Your task to perform on an android device: Search for pizza restaurants on Maps Image 0: 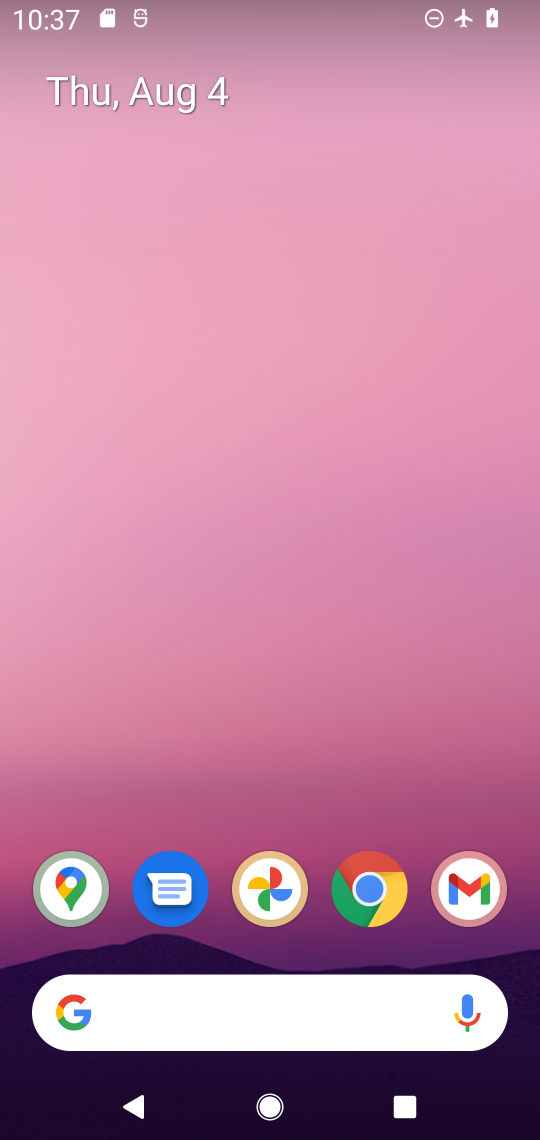
Step 0: press home button
Your task to perform on an android device: Search for pizza restaurants on Maps Image 1: 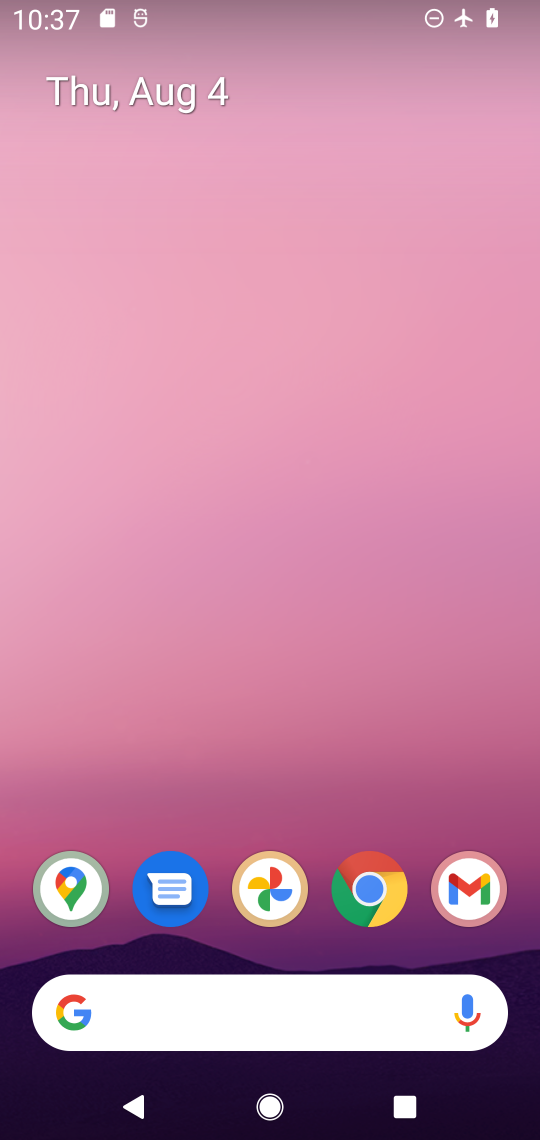
Step 1: drag from (414, 791) to (427, 238)
Your task to perform on an android device: Search for pizza restaurants on Maps Image 2: 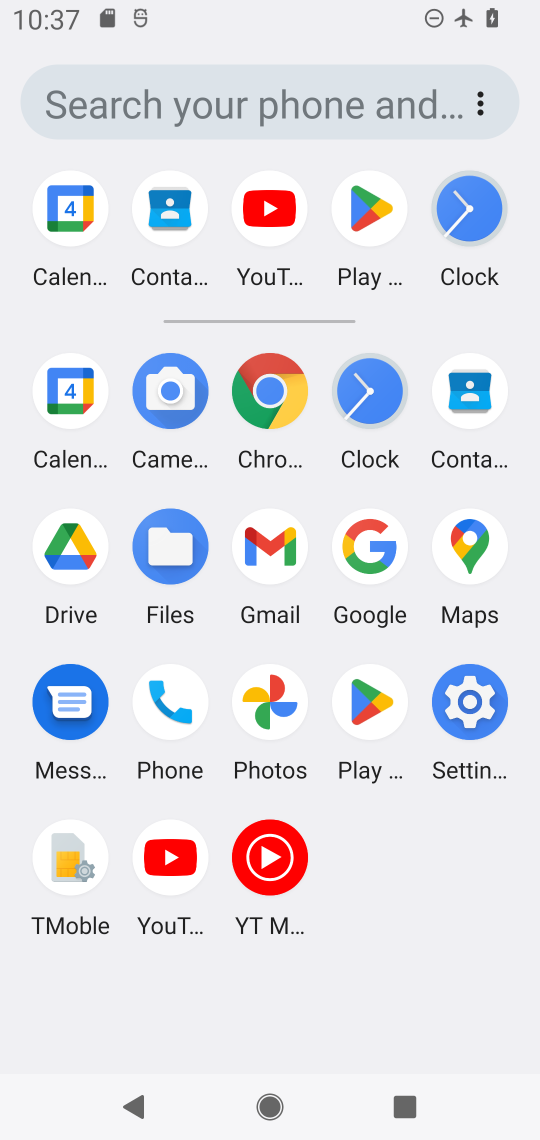
Step 2: click (477, 545)
Your task to perform on an android device: Search for pizza restaurants on Maps Image 3: 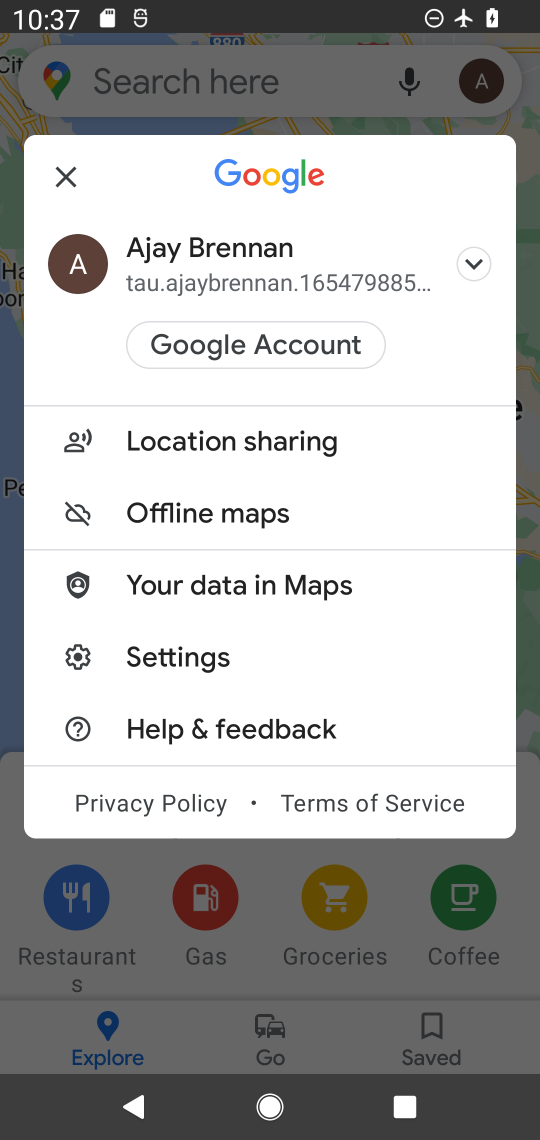
Step 3: press back button
Your task to perform on an android device: Search for pizza restaurants on Maps Image 4: 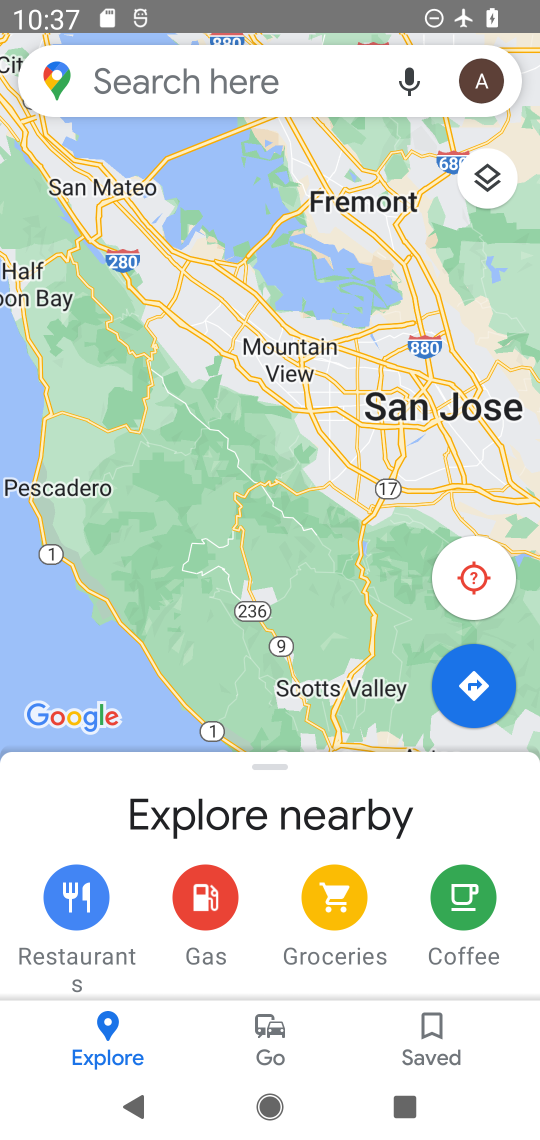
Step 4: click (265, 76)
Your task to perform on an android device: Search for pizza restaurants on Maps Image 5: 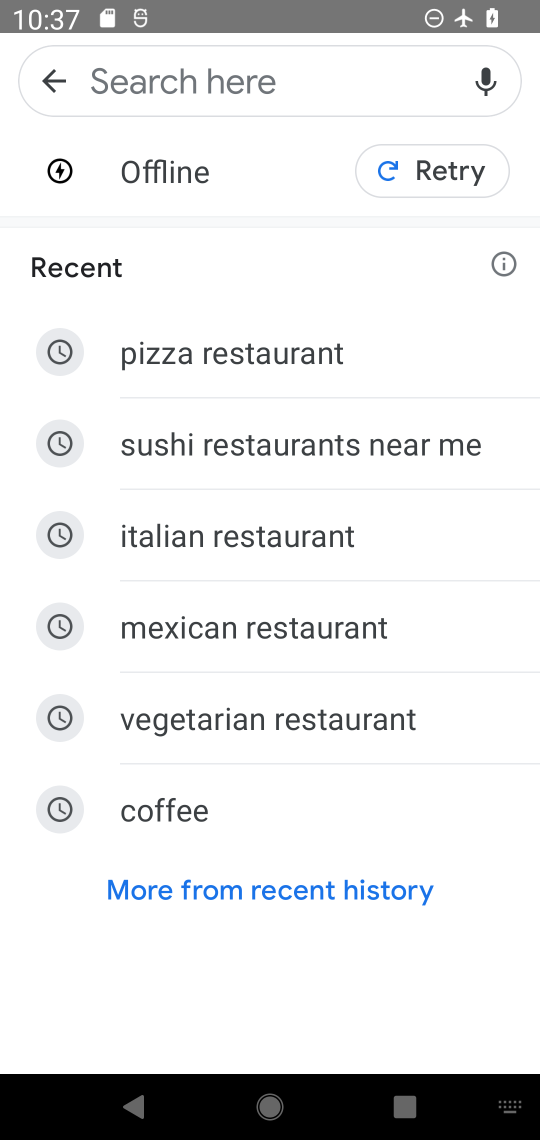
Step 5: type "pizza restaurants"
Your task to perform on an android device: Search for pizza restaurants on Maps Image 6: 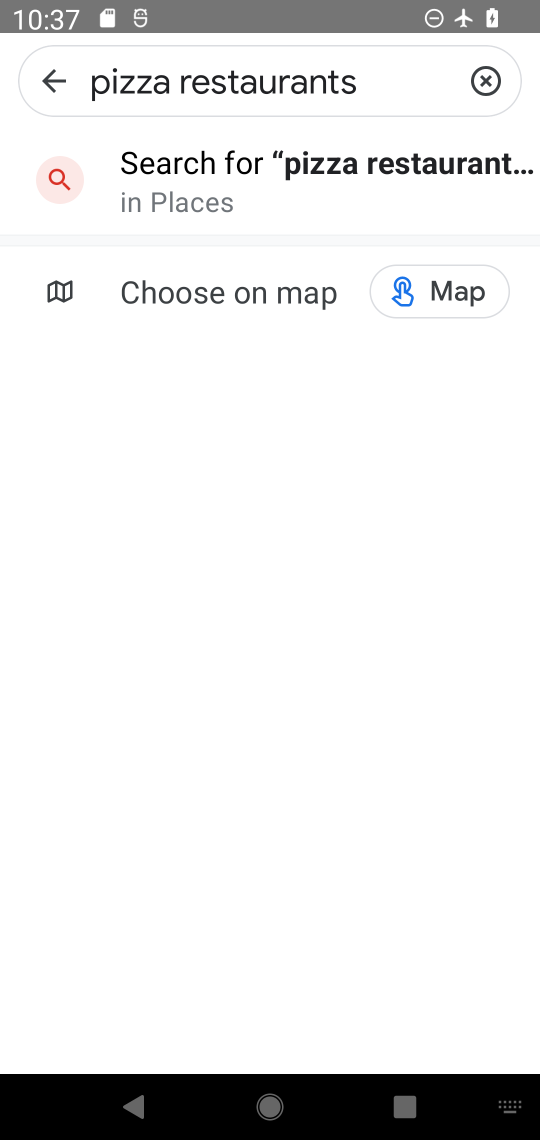
Step 6: task complete